Your task to perform on an android device: Go to network settings Image 0: 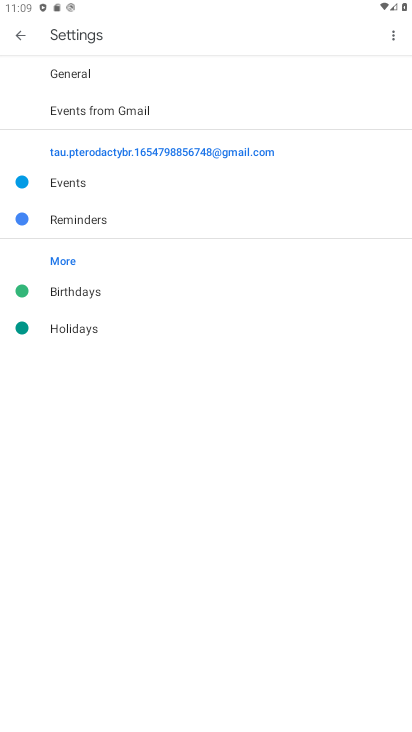
Step 0: press home button
Your task to perform on an android device: Go to network settings Image 1: 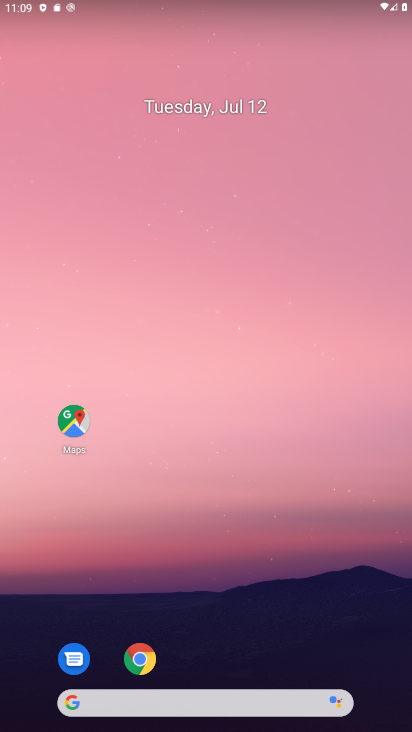
Step 1: drag from (214, 631) to (117, 116)
Your task to perform on an android device: Go to network settings Image 2: 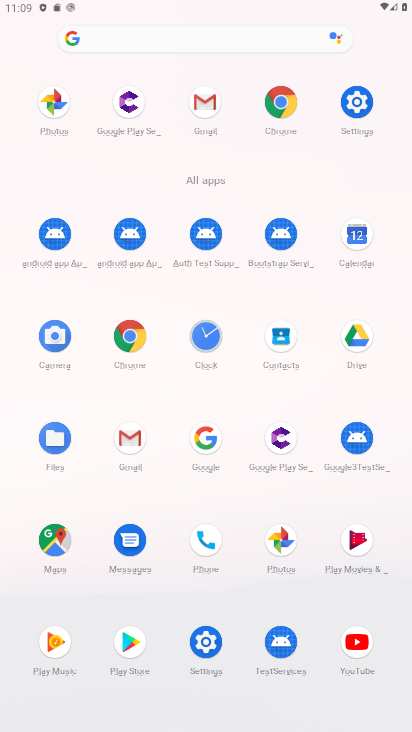
Step 2: click (369, 114)
Your task to perform on an android device: Go to network settings Image 3: 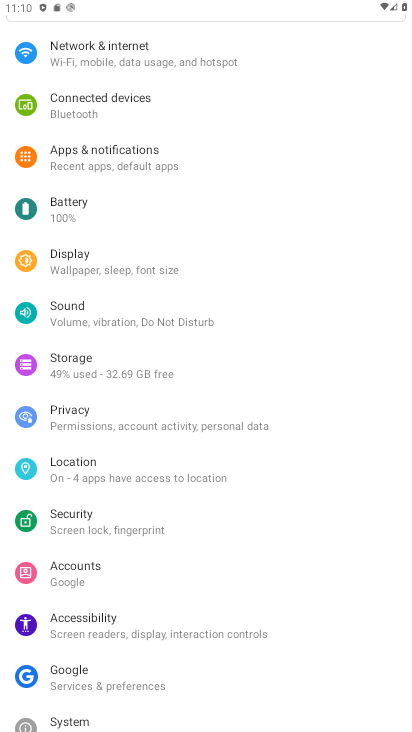
Step 3: click (297, 65)
Your task to perform on an android device: Go to network settings Image 4: 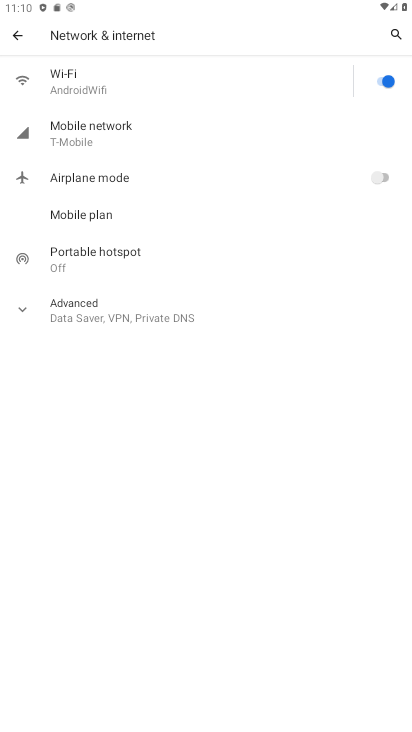
Step 4: task complete